Your task to perform on an android device: toggle sleep mode Image 0: 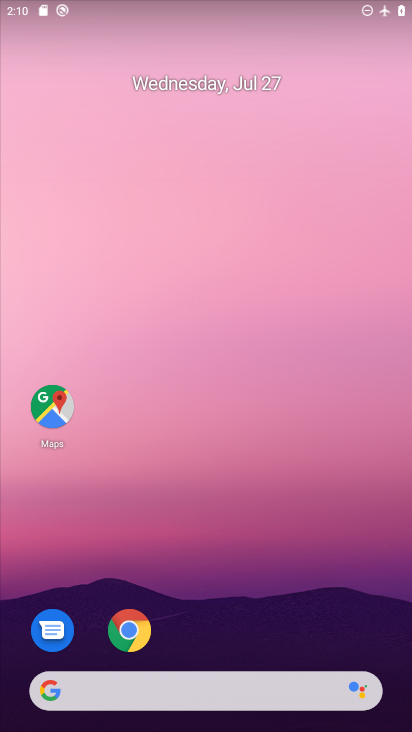
Step 0: drag from (358, 656) to (306, 148)
Your task to perform on an android device: toggle sleep mode Image 1: 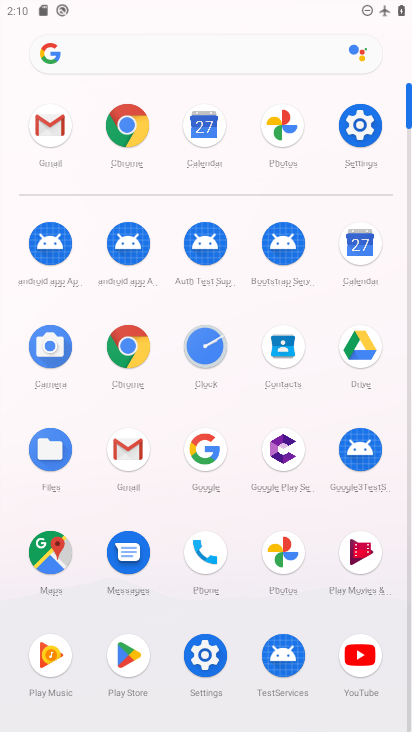
Step 1: click (205, 656)
Your task to perform on an android device: toggle sleep mode Image 2: 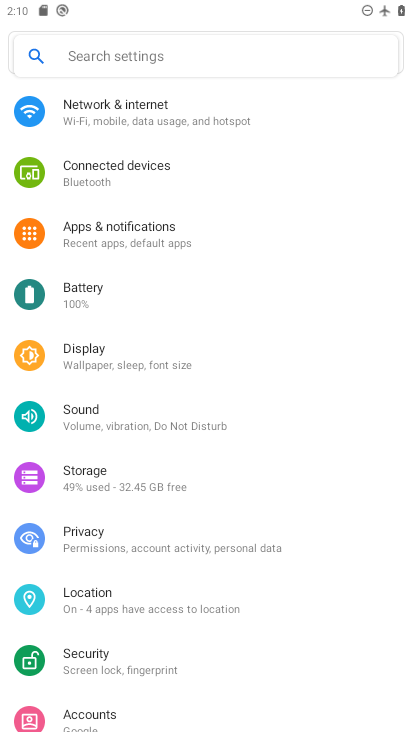
Step 2: click (91, 355)
Your task to perform on an android device: toggle sleep mode Image 3: 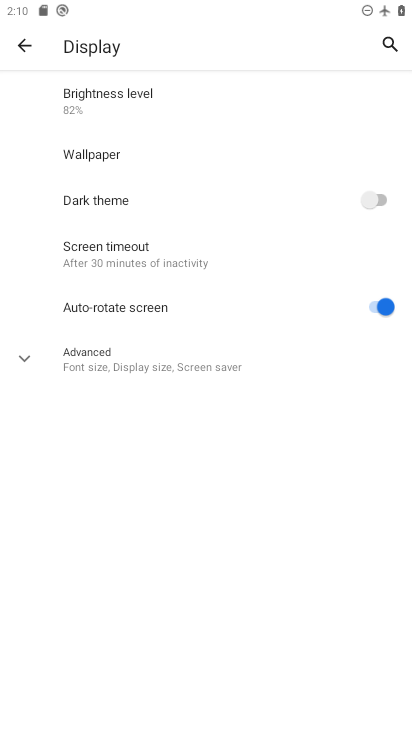
Step 3: click (25, 357)
Your task to perform on an android device: toggle sleep mode Image 4: 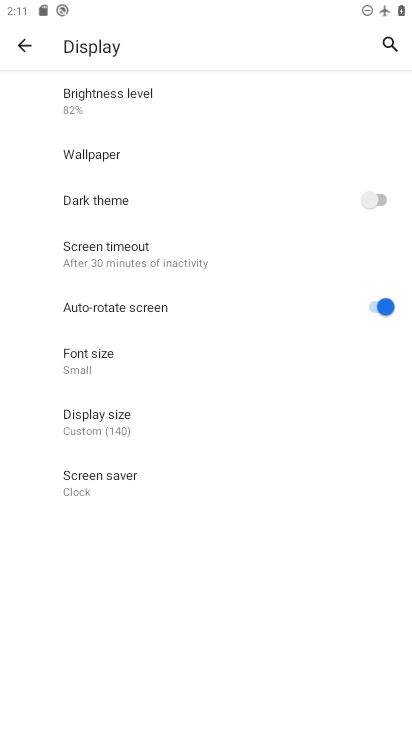
Step 4: task complete